Your task to perform on an android device: set the timer Image 0: 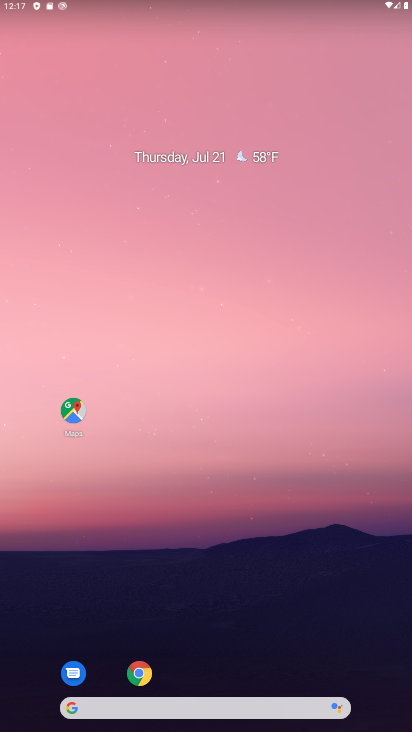
Step 0: drag from (264, 689) to (301, 182)
Your task to perform on an android device: set the timer Image 1: 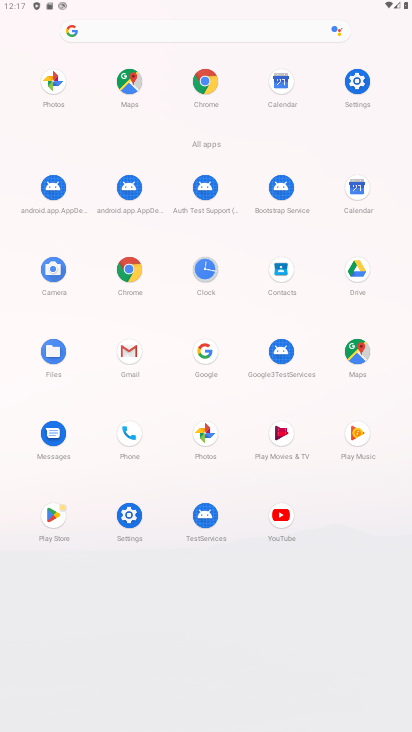
Step 1: click (199, 269)
Your task to perform on an android device: set the timer Image 2: 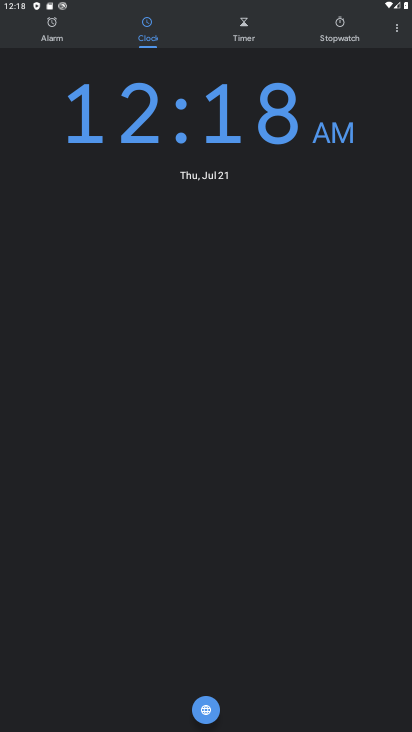
Step 2: click (235, 20)
Your task to perform on an android device: set the timer Image 3: 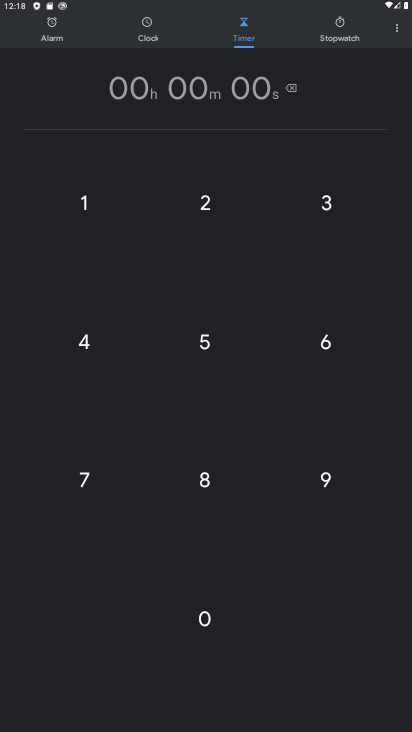
Step 3: click (208, 95)
Your task to perform on an android device: set the timer Image 4: 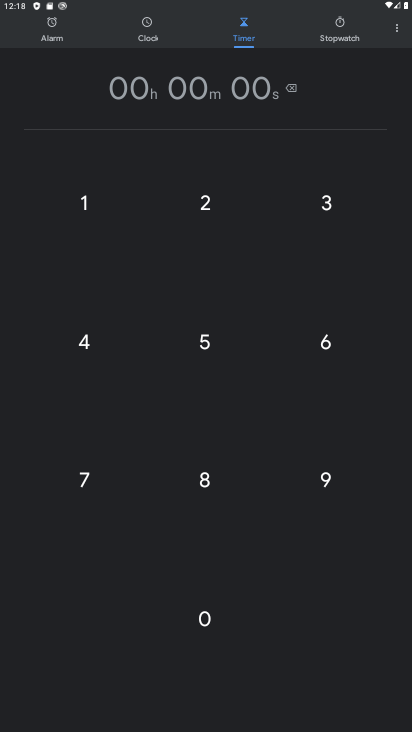
Step 4: type "787878788  "
Your task to perform on an android device: set the timer Image 5: 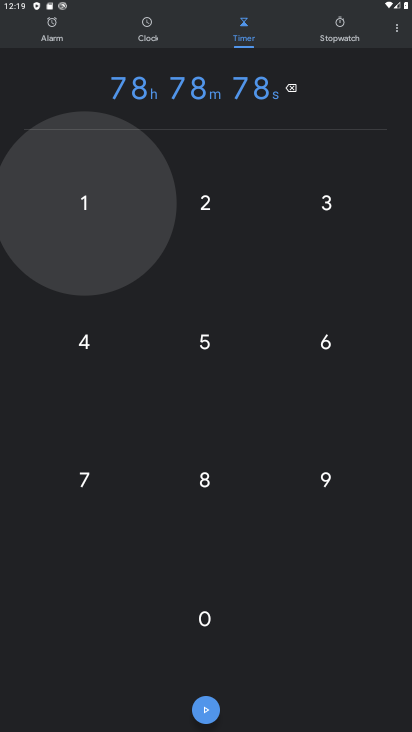
Step 5: task complete